Your task to perform on an android device: star an email in the gmail app Image 0: 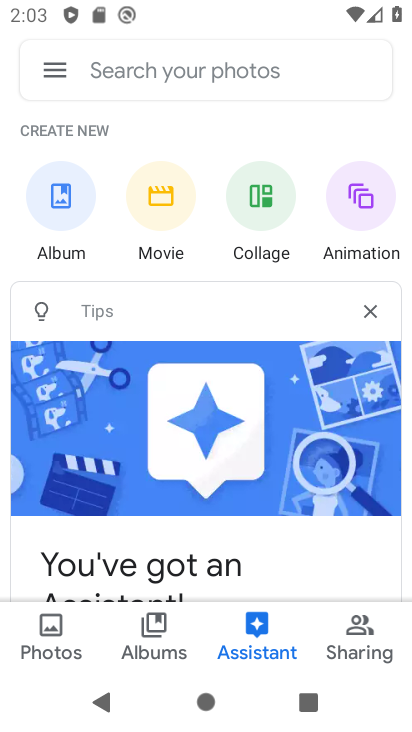
Step 0: press home button
Your task to perform on an android device: star an email in the gmail app Image 1: 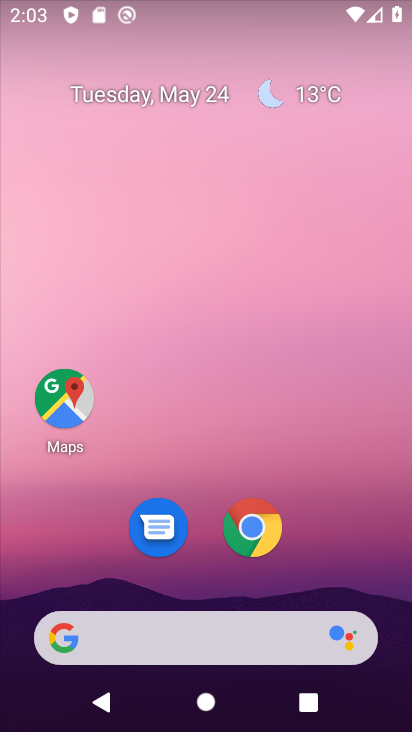
Step 1: drag from (354, 576) to (353, 41)
Your task to perform on an android device: star an email in the gmail app Image 2: 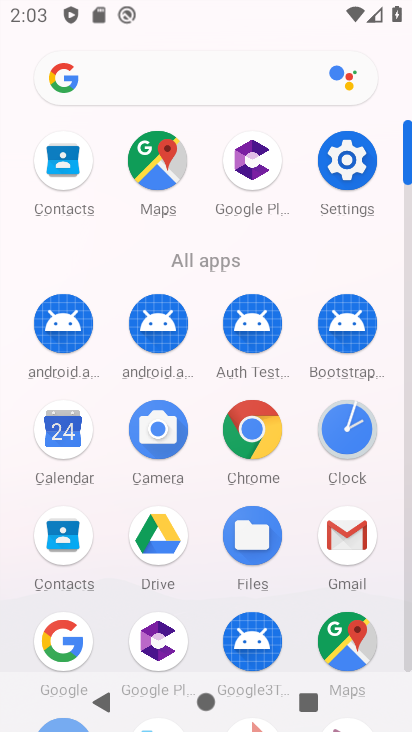
Step 2: click (330, 533)
Your task to perform on an android device: star an email in the gmail app Image 3: 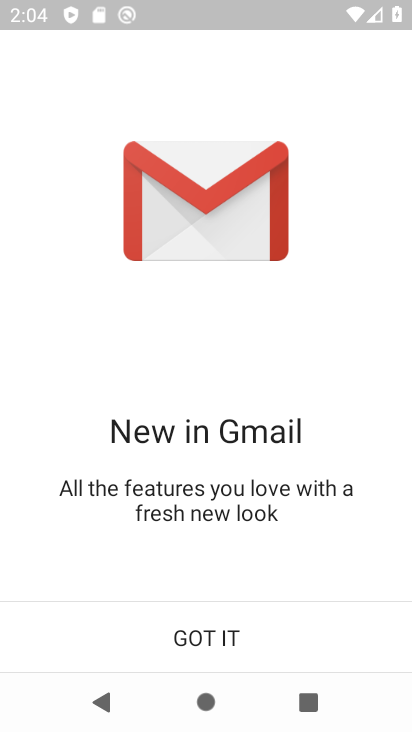
Step 3: click (190, 637)
Your task to perform on an android device: star an email in the gmail app Image 4: 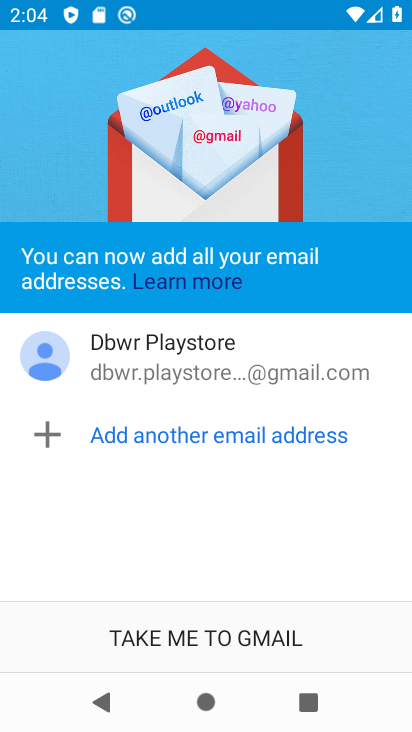
Step 4: click (182, 619)
Your task to perform on an android device: star an email in the gmail app Image 5: 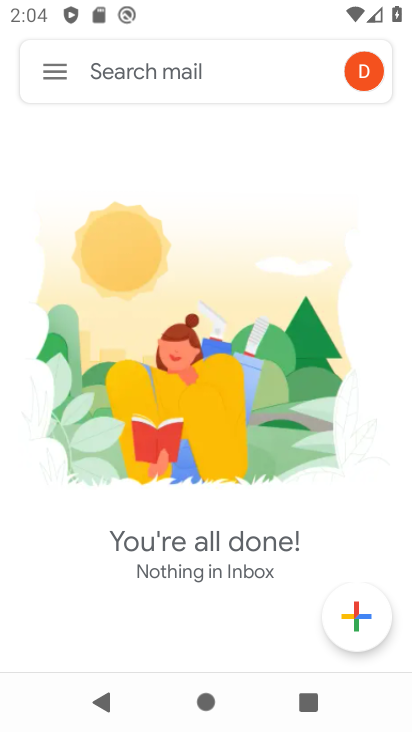
Step 5: click (62, 63)
Your task to perform on an android device: star an email in the gmail app Image 6: 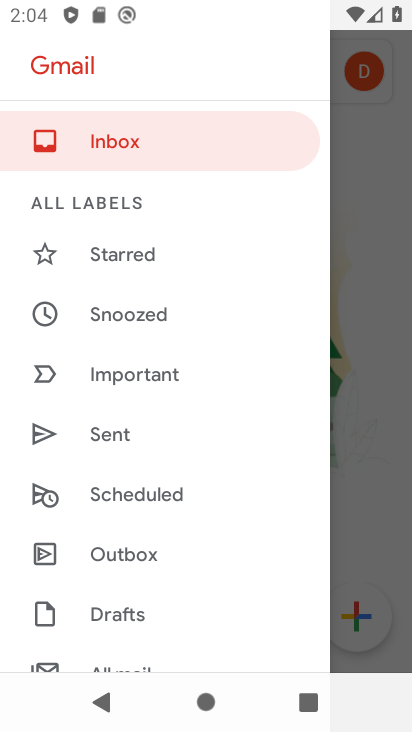
Step 6: drag from (145, 578) to (103, 272)
Your task to perform on an android device: star an email in the gmail app Image 7: 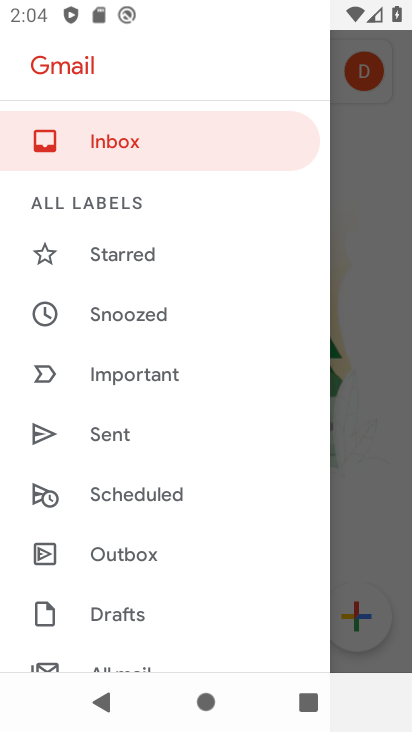
Step 7: drag from (178, 529) to (237, 215)
Your task to perform on an android device: star an email in the gmail app Image 8: 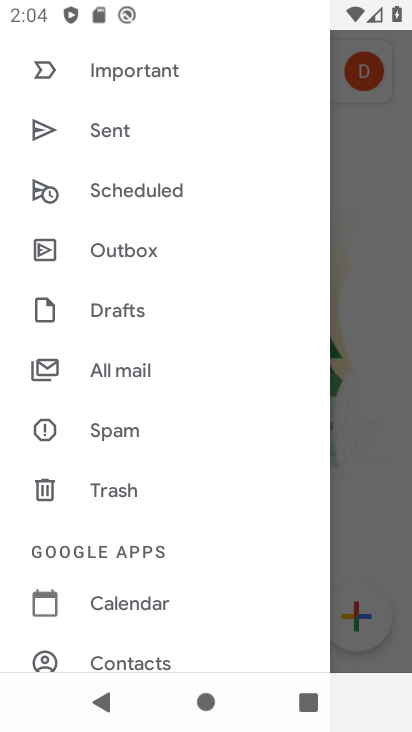
Step 8: drag from (158, 169) to (217, 541)
Your task to perform on an android device: star an email in the gmail app Image 9: 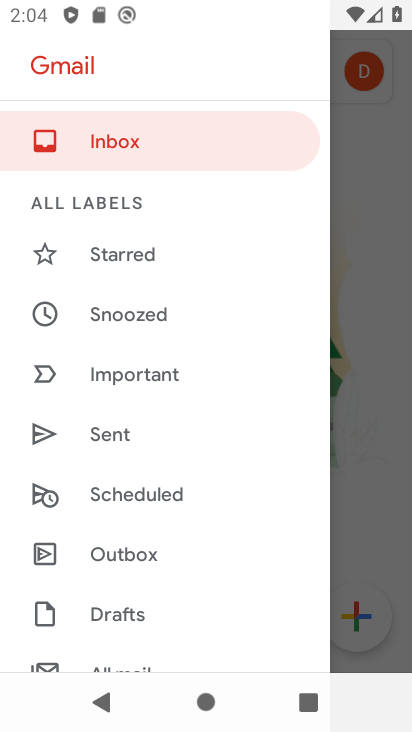
Step 9: drag from (177, 587) to (228, 226)
Your task to perform on an android device: star an email in the gmail app Image 10: 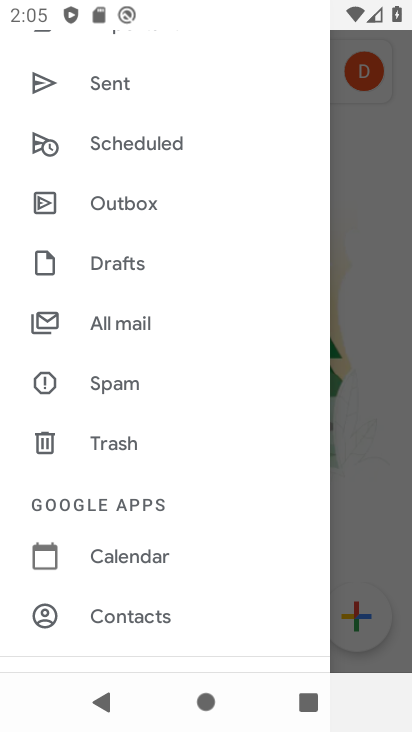
Step 10: click (137, 307)
Your task to perform on an android device: star an email in the gmail app Image 11: 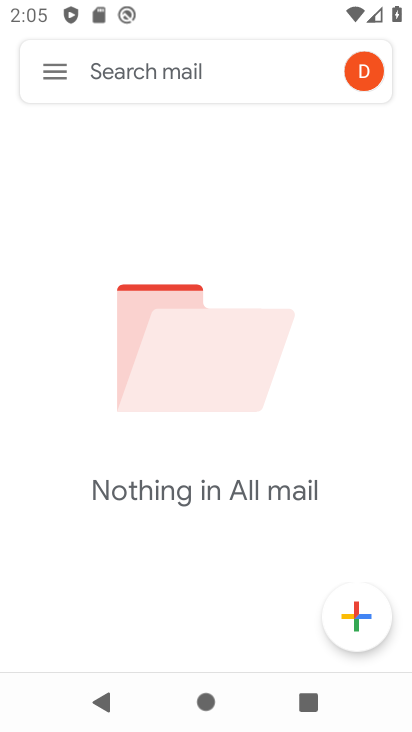
Step 11: task complete